Your task to perform on an android device: change alarm snooze length Image 0: 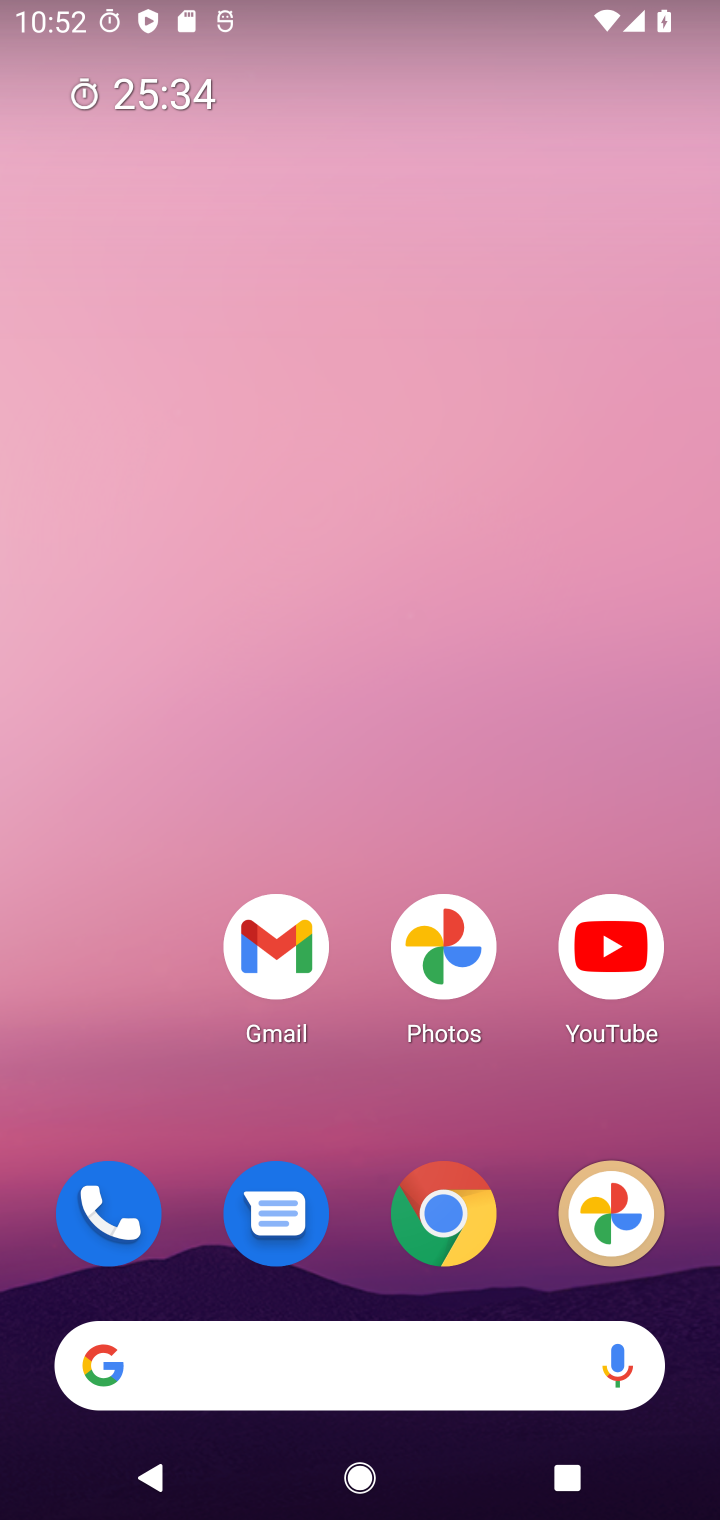
Step 0: drag from (353, 1110) to (398, 116)
Your task to perform on an android device: change alarm snooze length Image 1: 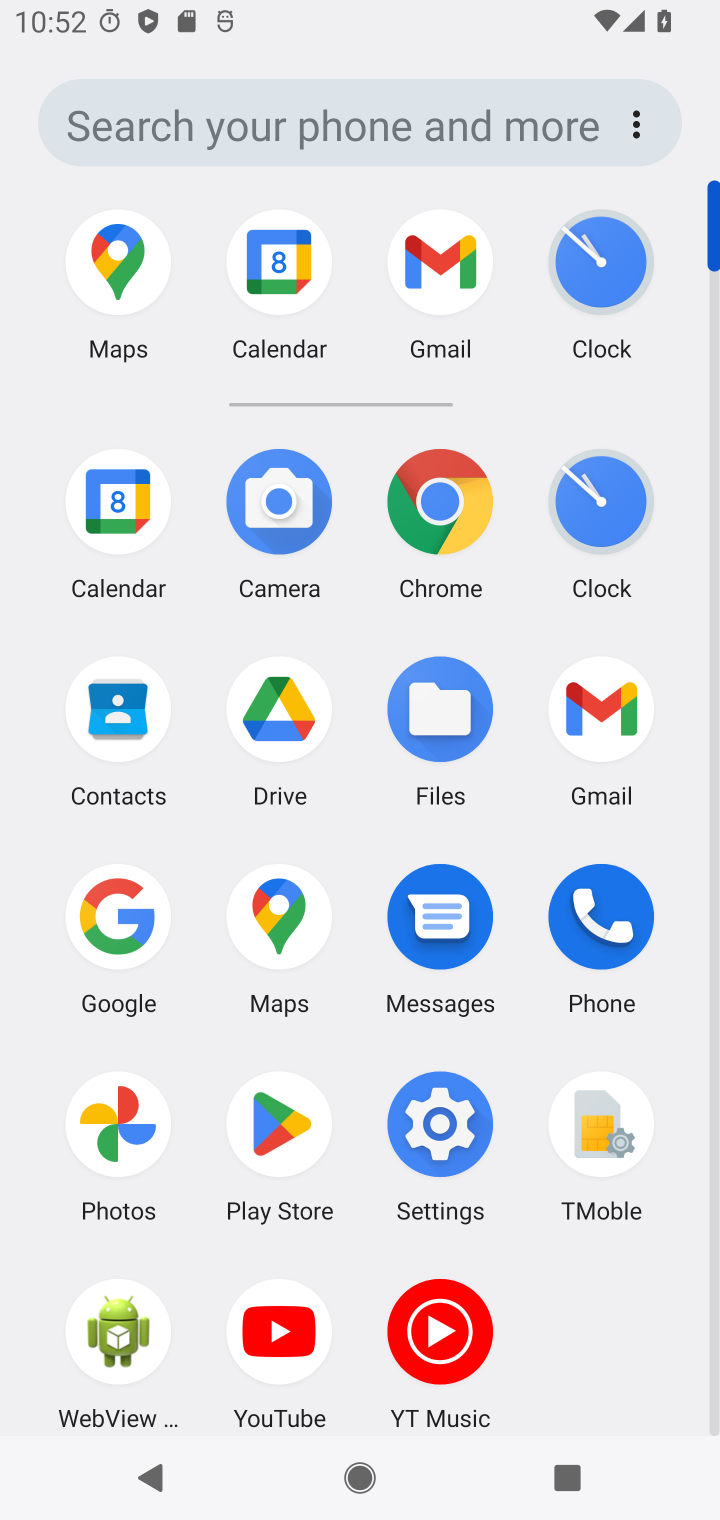
Step 1: click (627, 535)
Your task to perform on an android device: change alarm snooze length Image 2: 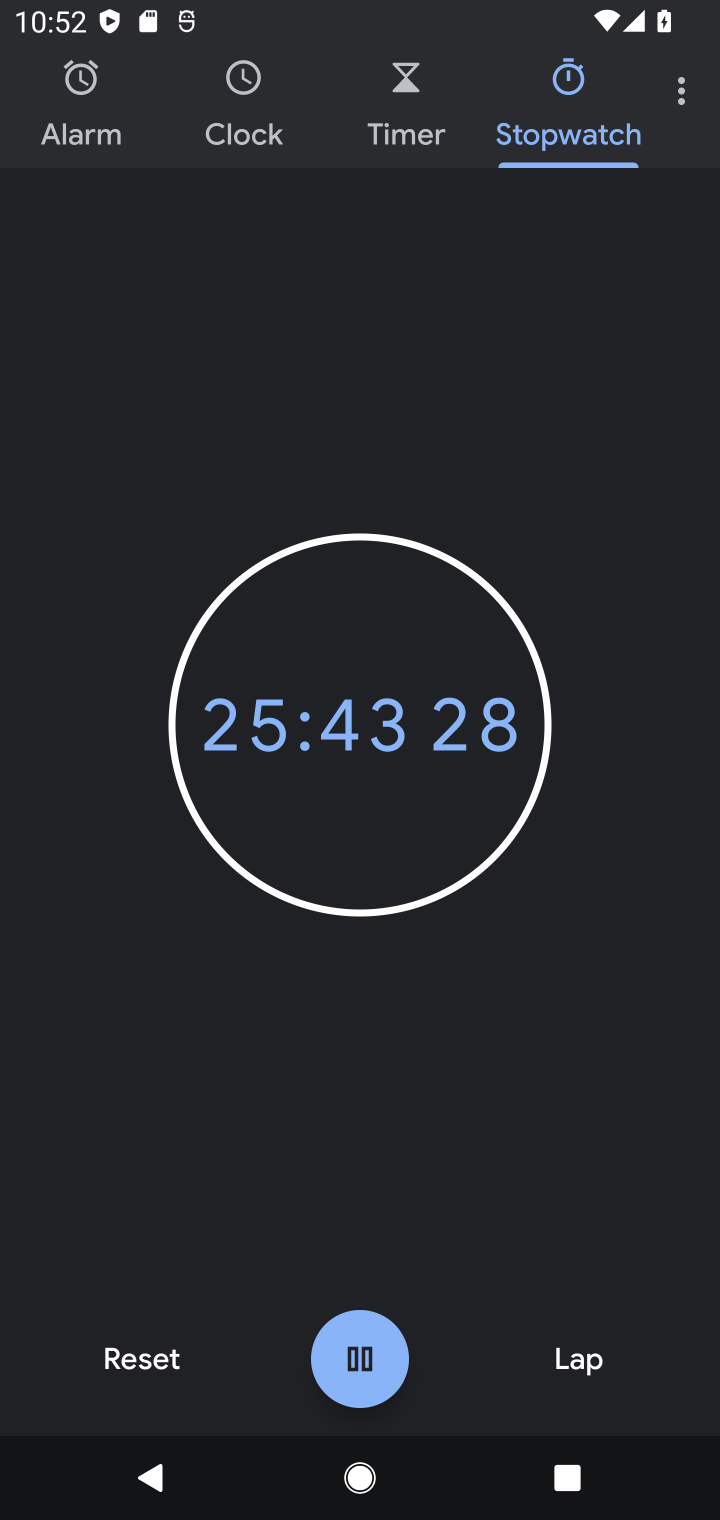
Step 2: click (677, 107)
Your task to perform on an android device: change alarm snooze length Image 3: 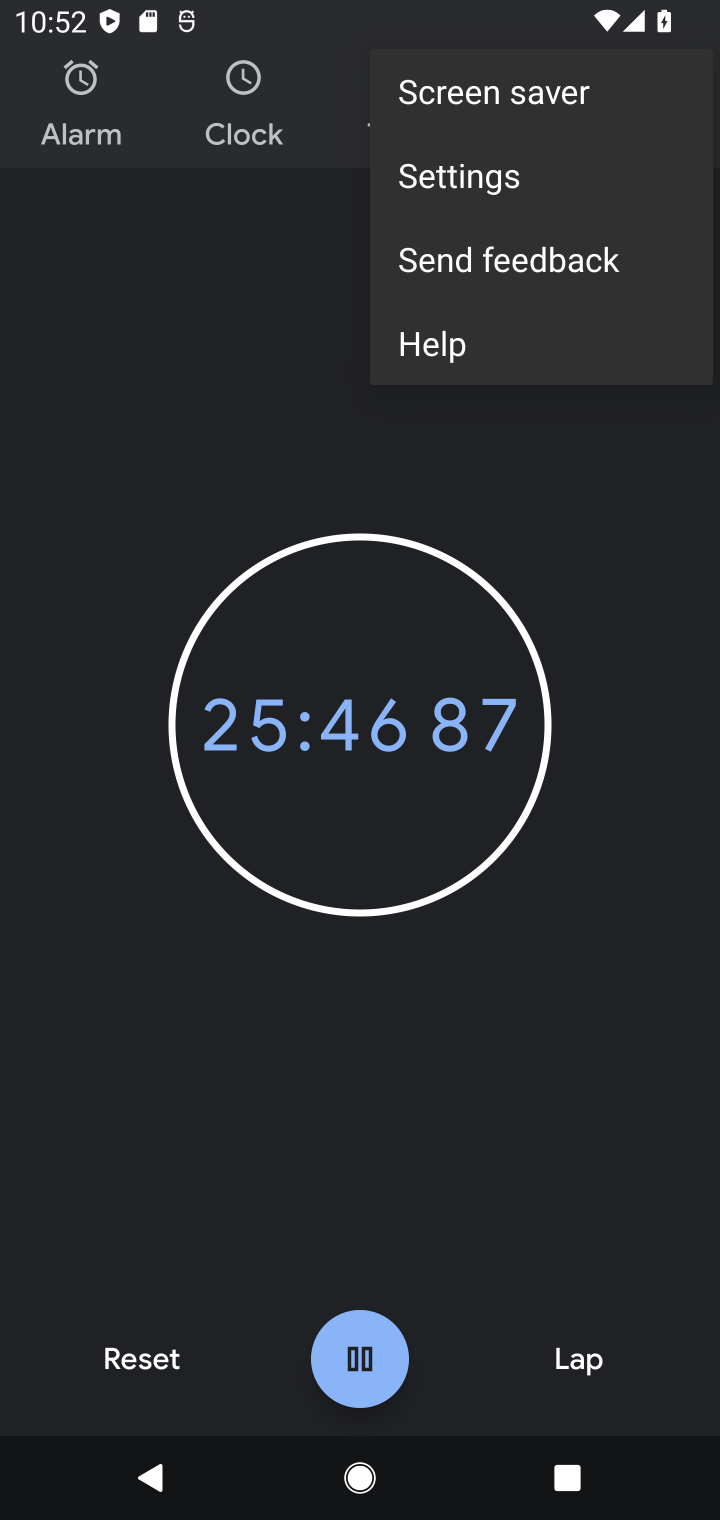
Step 3: click (502, 189)
Your task to perform on an android device: change alarm snooze length Image 4: 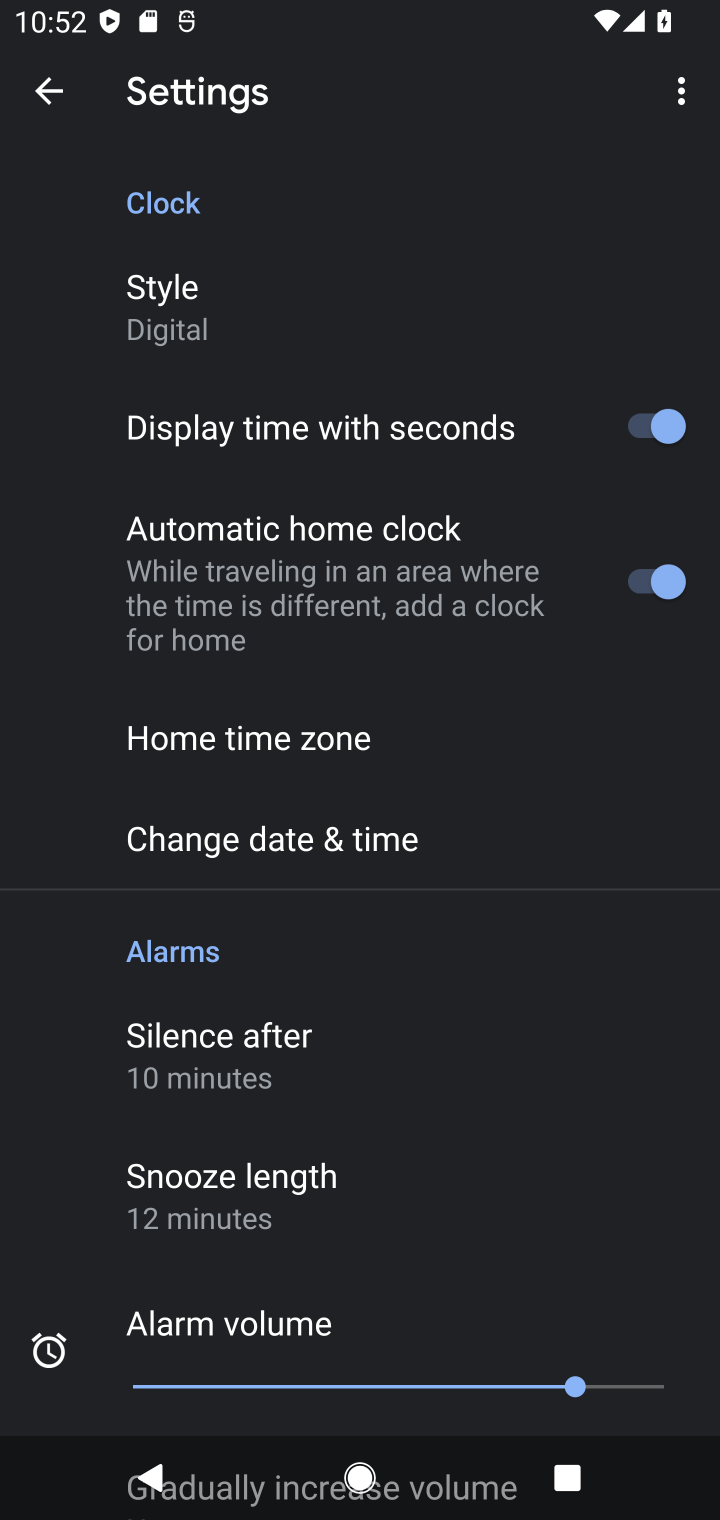
Step 4: click (335, 1231)
Your task to perform on an android device: change alarm snooze length Image 5: 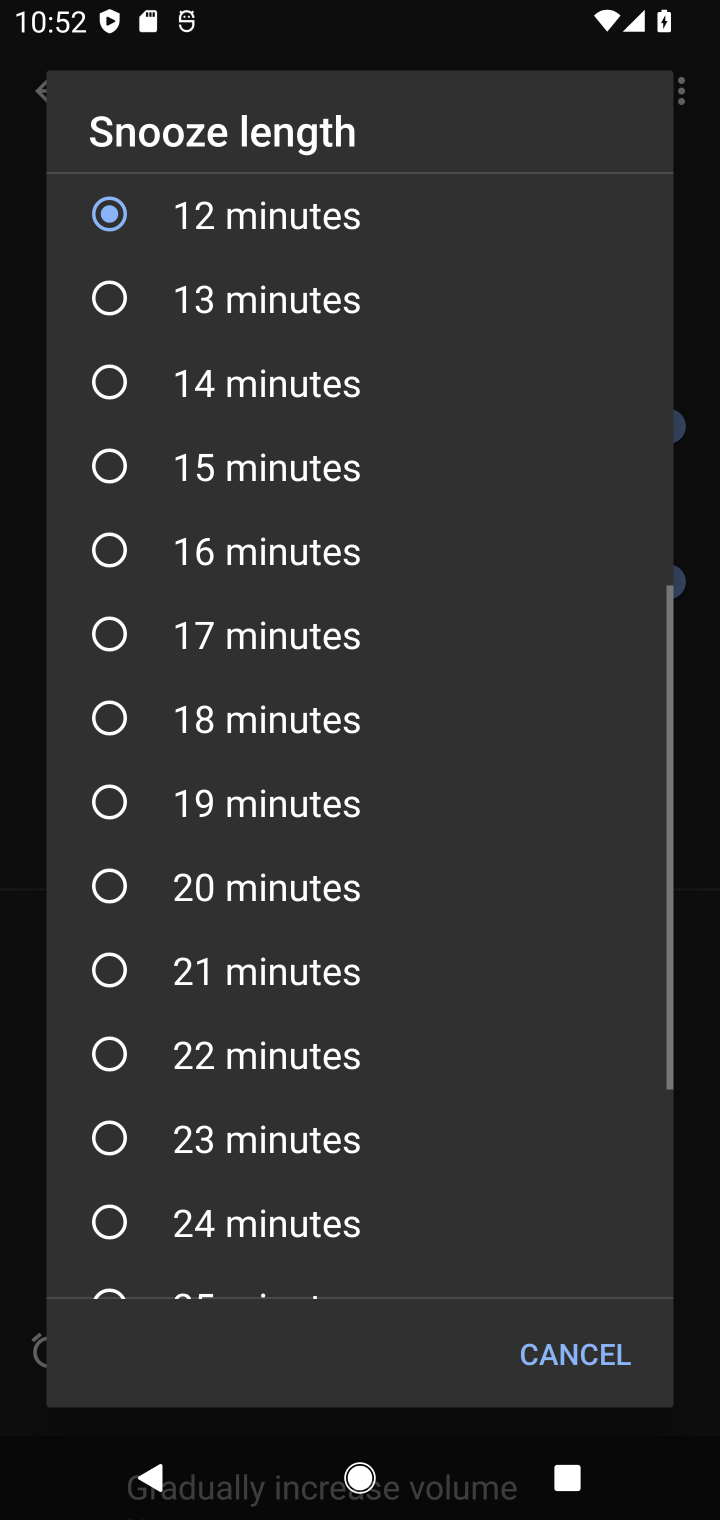
Step 5: click (263, 375)
Your task to perform on an android device: change alarm snooze length Image 6: 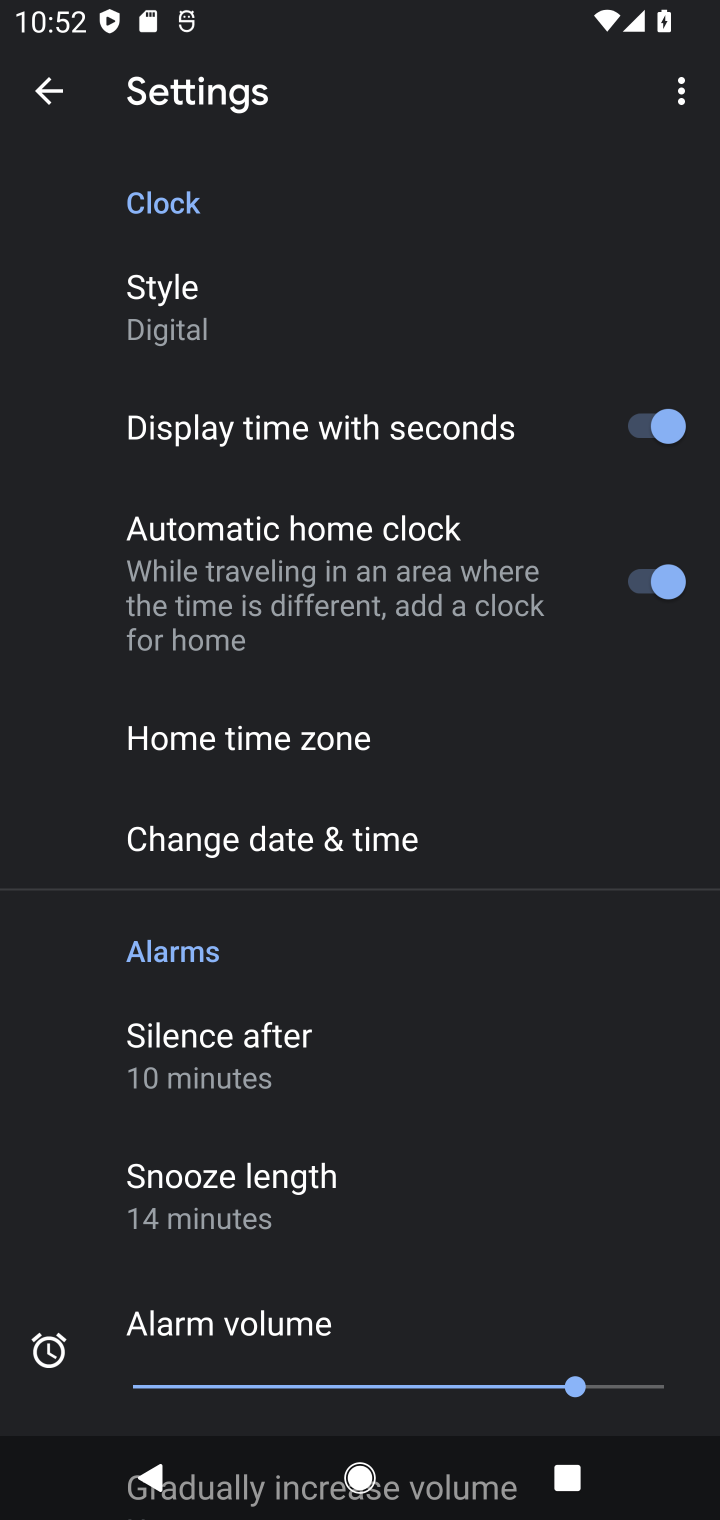
Step 6: task complete